Your task to perform on an android device: change notification settings in the gmail app Image 0: 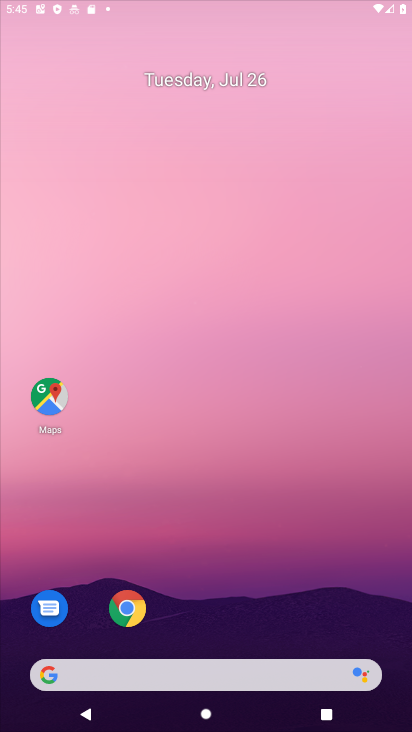
Step 0: press home button
Your task to perform on an android device: change notification settings in the gmail app Image 1: 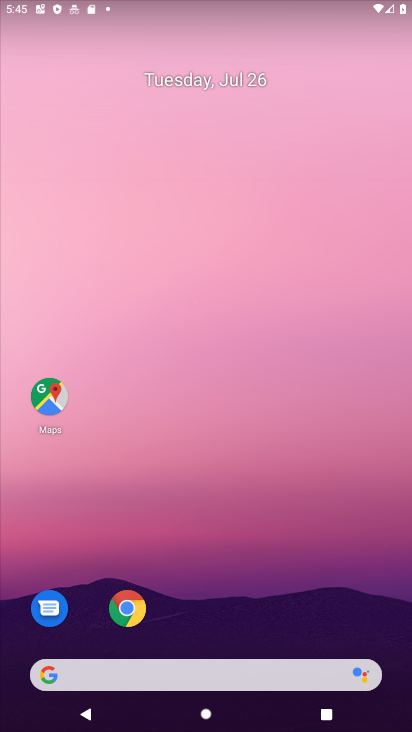
Step 1: drag from (267, 643) to (121, 8)
Your task to perform on an android device: change notification settings in the gmail app Image 2: 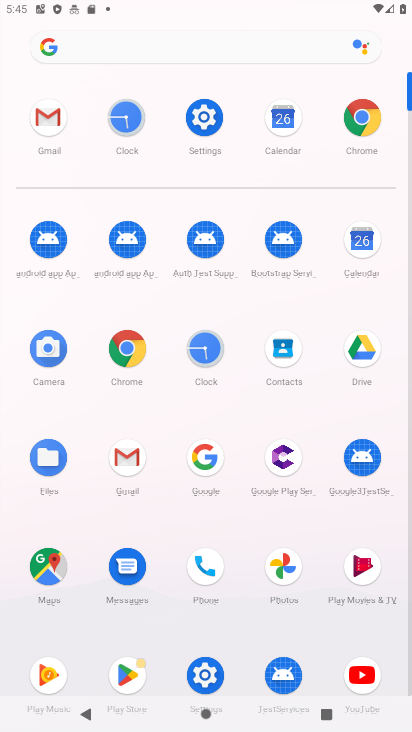
Step 2: click (38, 120)
Your task to perform on an android device: change notification settings in the gmail app Image 3: 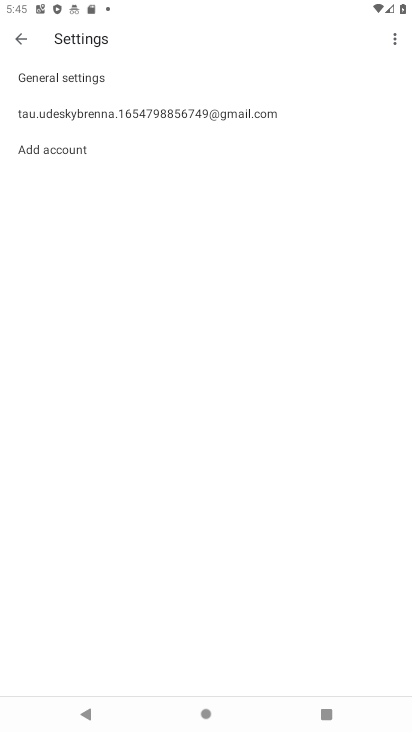
Step 3: click (45, 116)
Your task to perform on an android device: change notification settings in the gmail app Image 4: 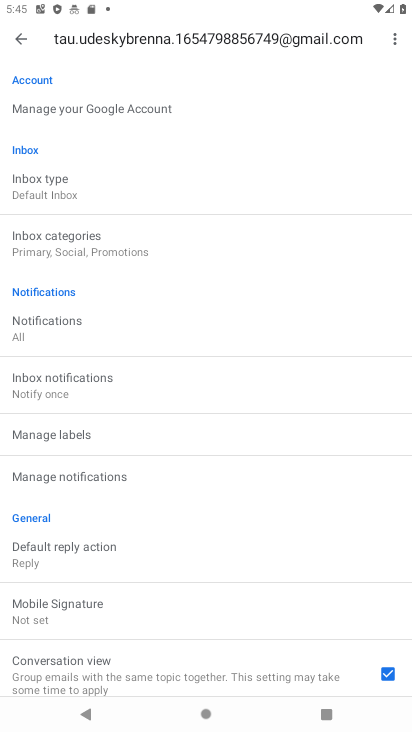
Step 4: click (110, 479)
Your task to perform on an android device: change notification settings in the gmail app Image 5: 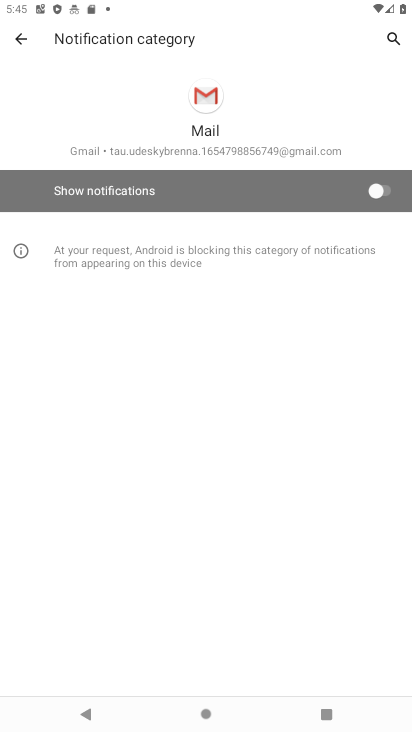
Step 5: click (368, 199)
Your task to perform on an android device: change notification settings in the gmail app Image 6: 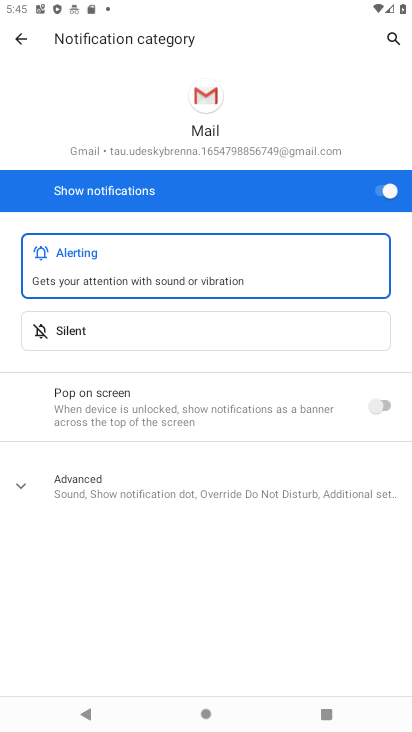
Step 6: task complete